Your task to perform on an android device: Clear the cart on amazon. Add "bose soundsport free" to the cart on amazon Image 0: 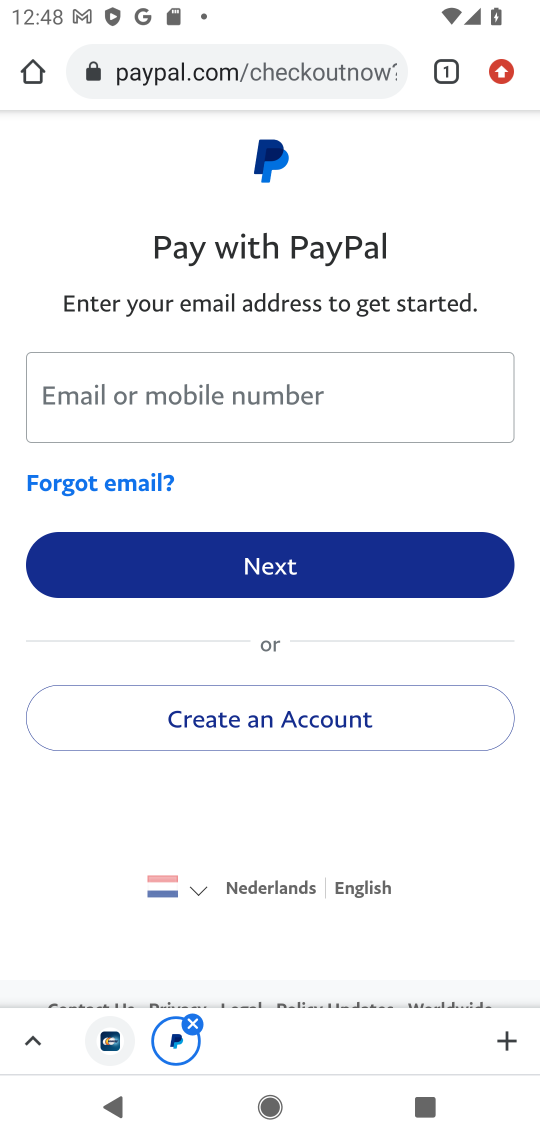
Step 0: task complete